Your task to perform on an android device: toggle notification dots Image 0: 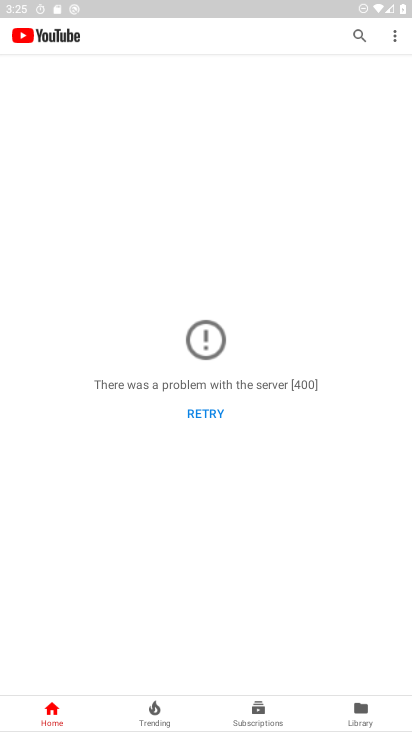
Step 0: press home button
Your task to perform on an android device: toggle notification dots Image 1: 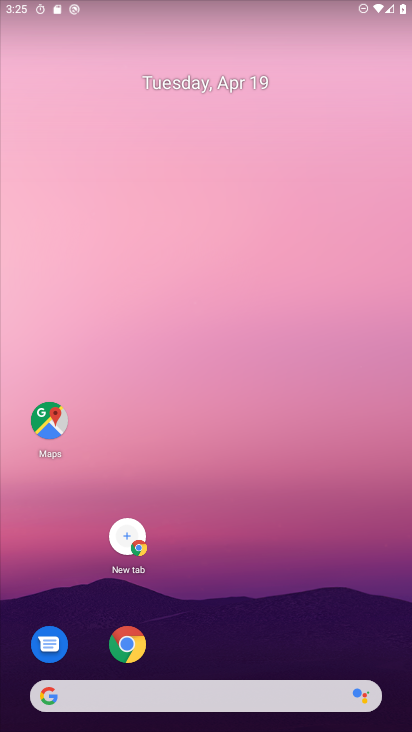
Step 1: drag from (209, 573) to (139, 149)
Your task to perform on an android device: toggle notification dots Image 2: 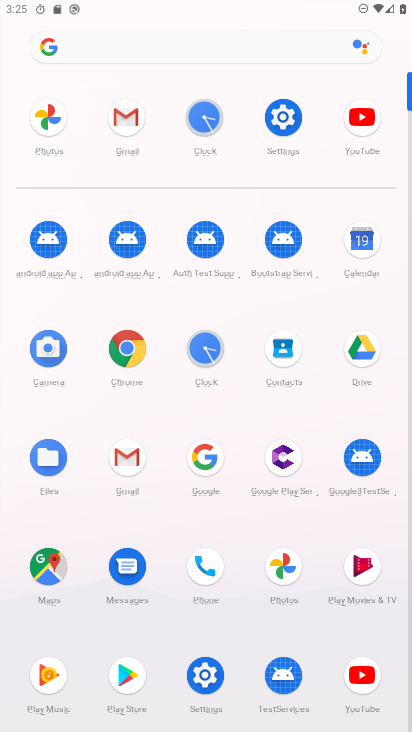
Step 2: click (282, 110)
Your task to perform on an android device: toggle notification dots Image 3: 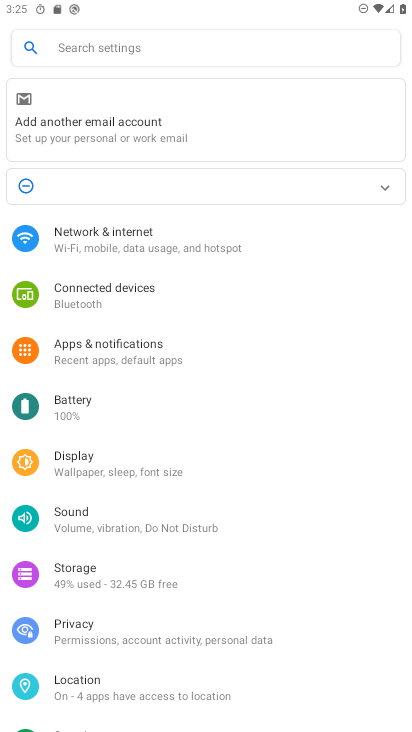
Step 3: click (111, 346)
Your task to perform on an android device: toggle notification dots Image 4: 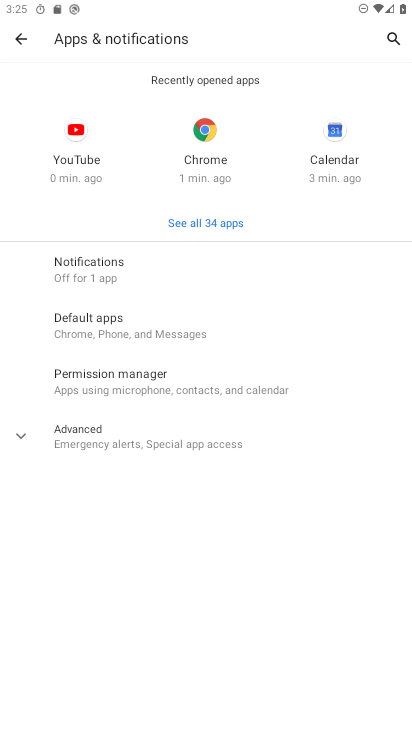
Step 4: click (89, 269)
Your task to perform on an android device: toggle notification dots Image 5: 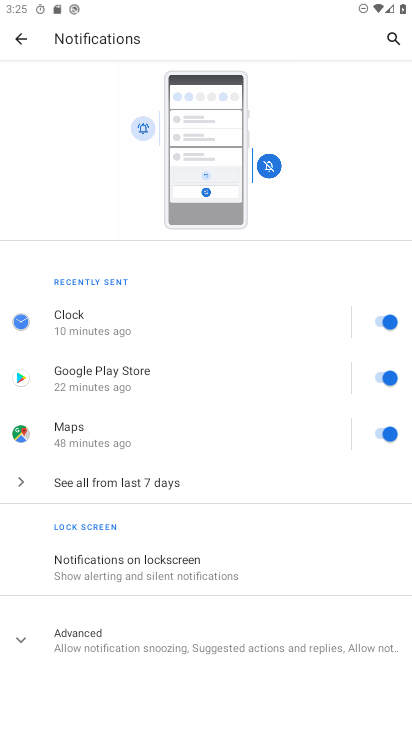
Step 5: click (110, 643)
Your task to perform on an android device: toggle notification dots Image 6: 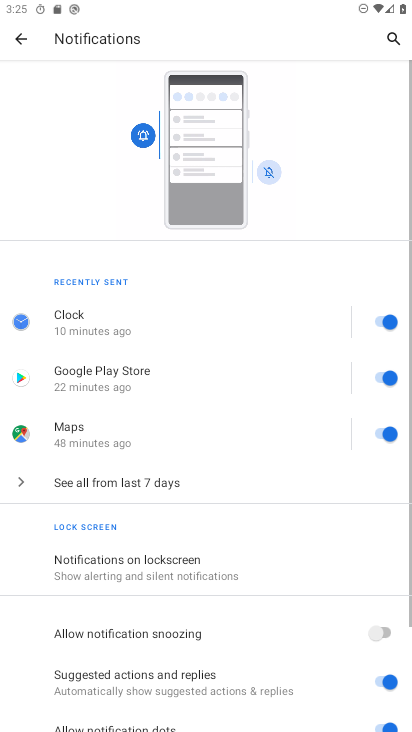
Step 6: drag from (115, 663) to (132, 263)
Your task to perform on an android device: toggle notification dots Image 7: 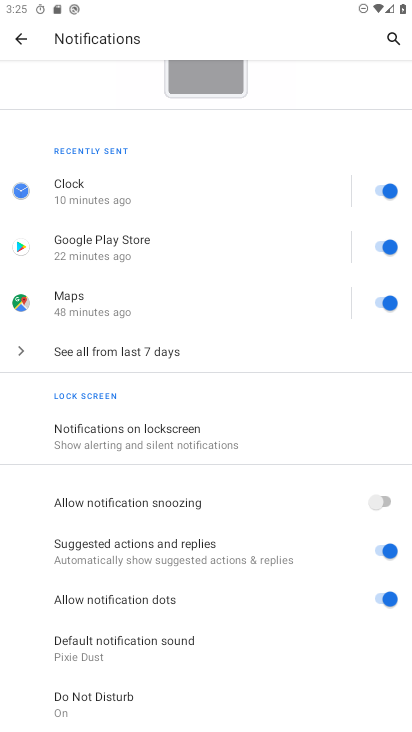
Step 7: click (389, 599)
Your task to perform on an android device: toggle notification dots Image 8: 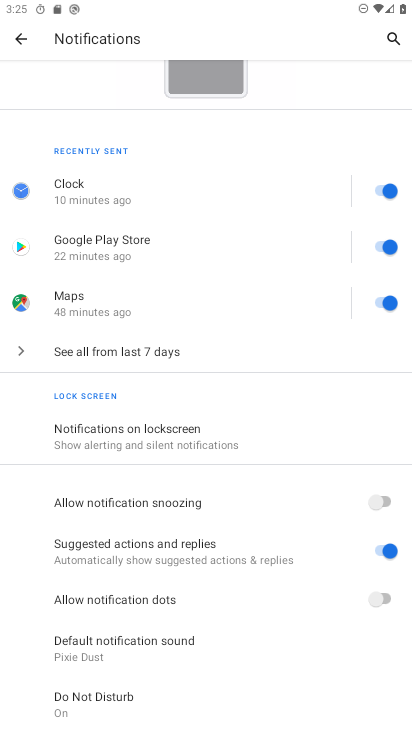
Step 8: task complete